Your task to perform on an android device: Open my contact list Image 0: 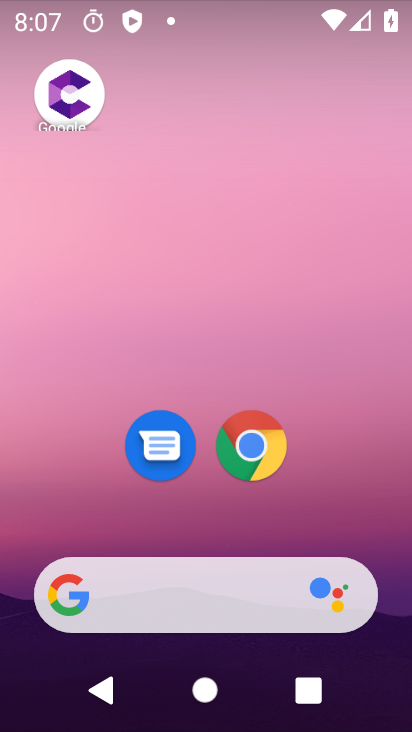
Step 0: drag from (327, 535) to (234, 147)
Your task to perform on an android device: Open my contact list Image 1: 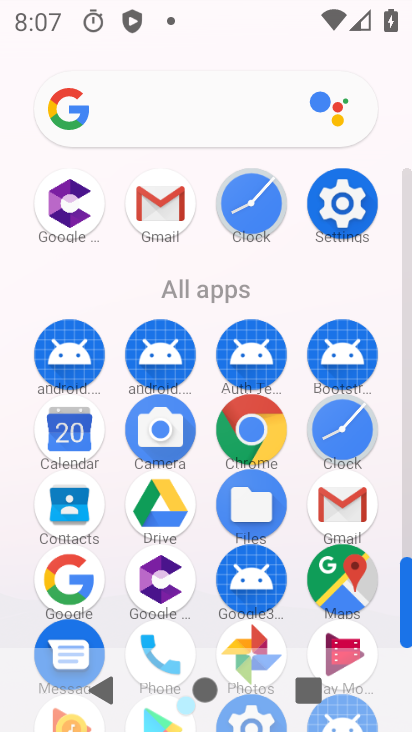
Step 1: click (78, 517)
Your task to perform on an android device: Open my contact list Image 2: 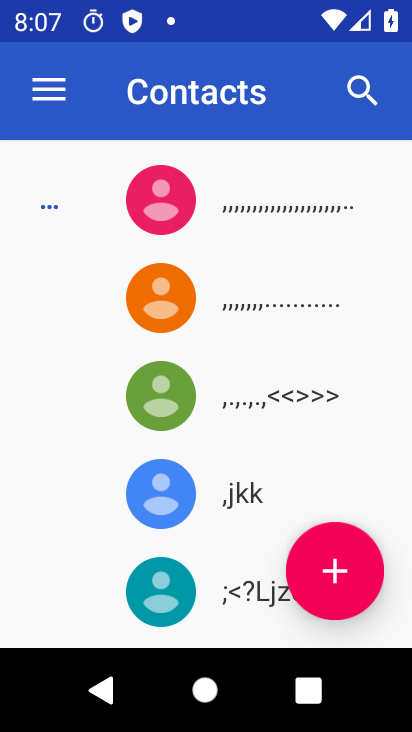
Step 2: task complete